Your task to perform on an android device: create a new album in the google photos Image 0: 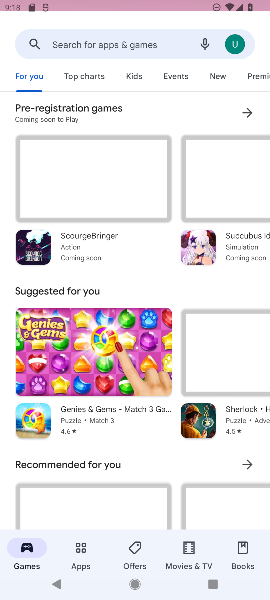
Step 0: drag from (143, 484) to (147, 272)
Your task to perform on an android device: create a new album in the google photos Image 1: 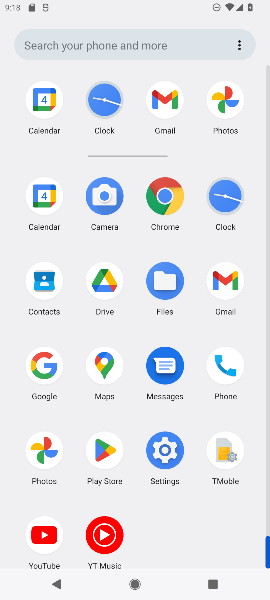
Step 1: click (49, 451)
Your task to perform on an android device: create a new album in the google photos Image 2: 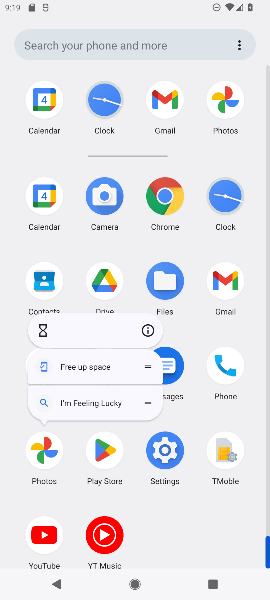
Step 2: click (151, 332)
Your task to perform on an android device: create a new album in the google photos Image 3: 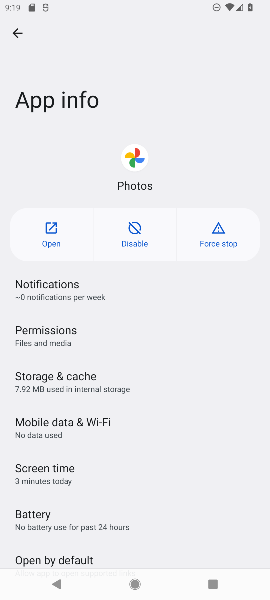
Step 3: click (58, 243)
Your task to perform on an android device: create a new album in the google photos Image 4: 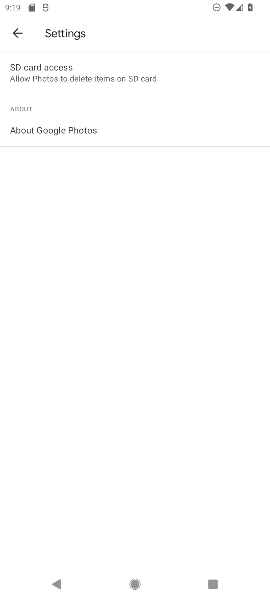
Step 4: click (20, 33)
Your task to perform on an android device: create a new album in the google photos Image 5: 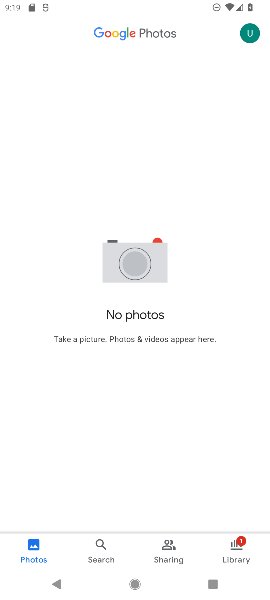
Step 5: click (231, 554)
Your task to perform on an android device: create a new album in the google photos Image 6: 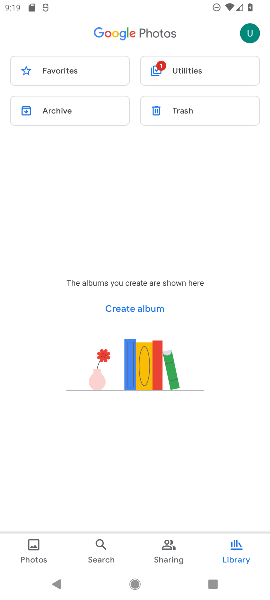
Step 6: click (137, 310)
Your task to perform on an android device: create a new album in the google photos Image 7: 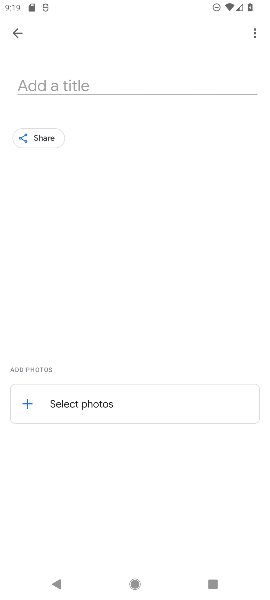
Step 7: click (54, 410)
Your task to perform on an android device: create a new album in the google photos Image 8: 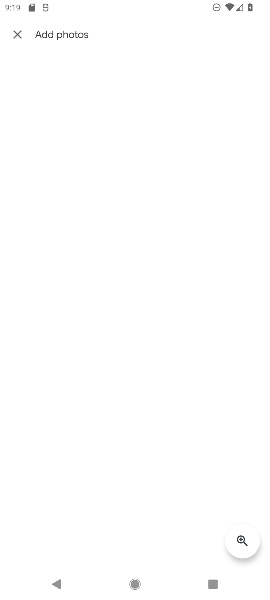
Step 8: task complete